Your task to perform on an android device: see tabs open on other devices in the chrome app Image 0: 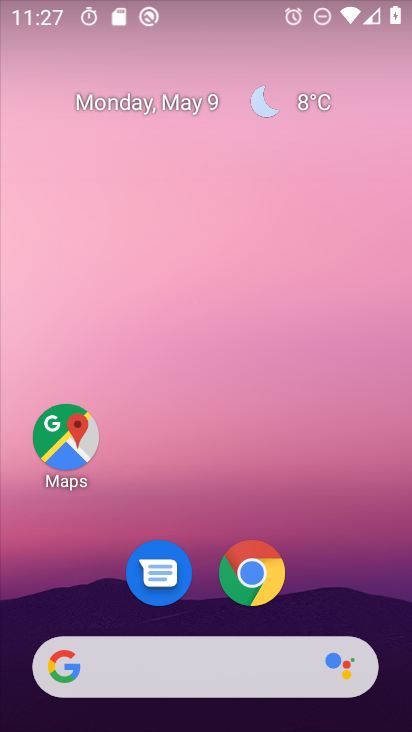
Step 0: click (240, 573)
Your task to perform on an android device: see tabs open on other devices in the chrome app Image 1: 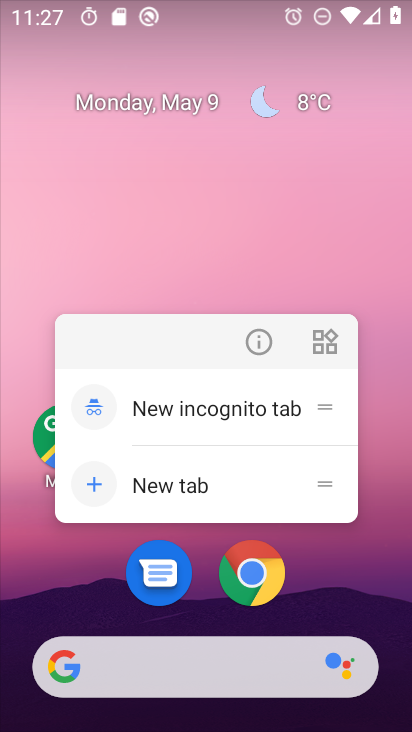
Step 1: click (241, 543)
Your task to perform on an android device: see tabs open on other devices in the chrome app Image 2: 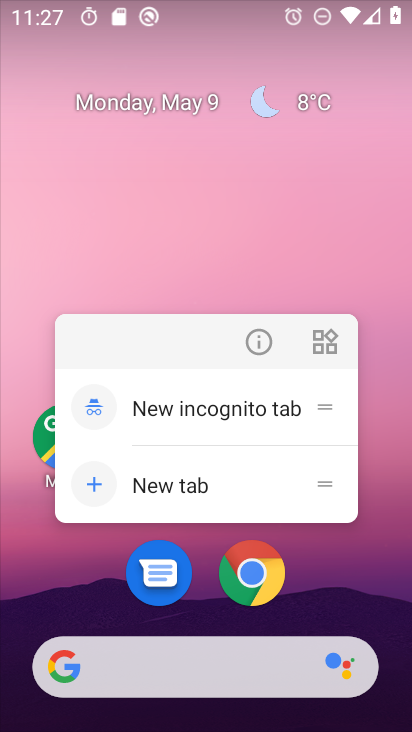
Step 2: click (252, 578)
Your task to perform on an android device: see tabs open on other devices in the chrome app Image 3: 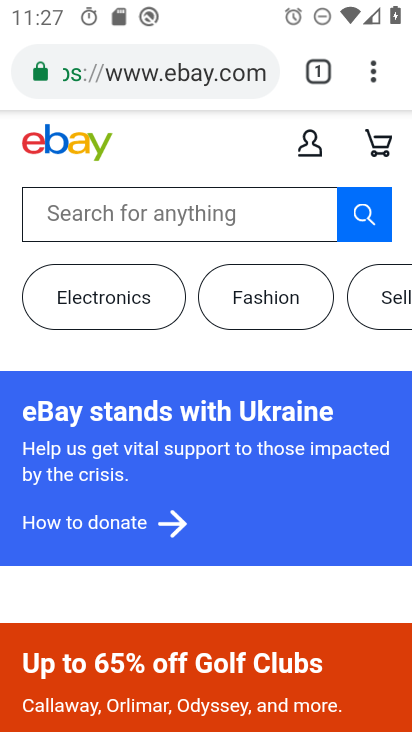
Step 3: task complete